Your task to perform on an android device: Open calendar and show me the first week of next month Image 0: 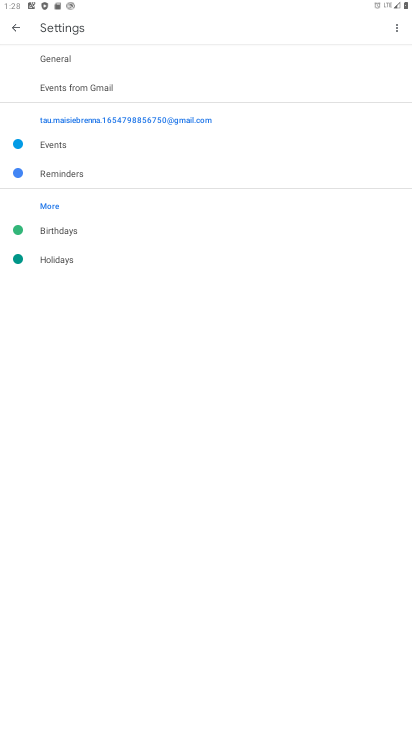
Step 0: press home button
Your task to perform on an android device: Open calendar and show me the first week of next month Image 1: 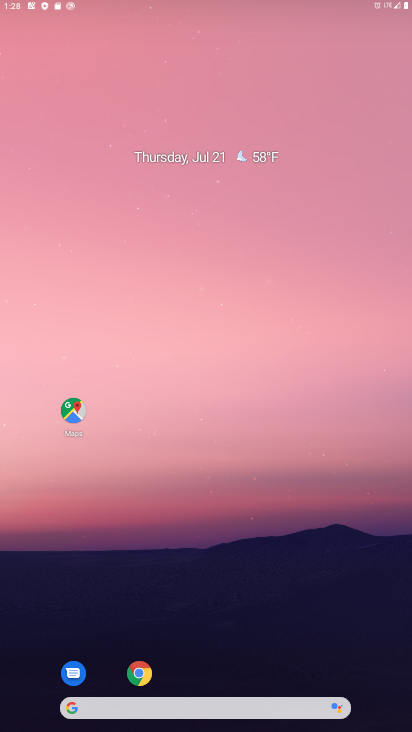
Step 1: drag from (224, 623) to (226, 309)
Your task to perform on an android device: Open calendar and show me the first week of next month Image 2: 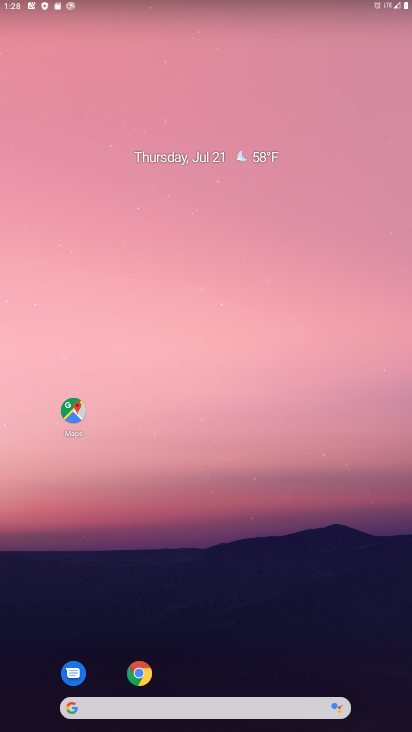
Step 2: drag from (227, 644) to (225, 266)
Your task to perform on an android device: Open calendar and show me the first week of next month Image 3: 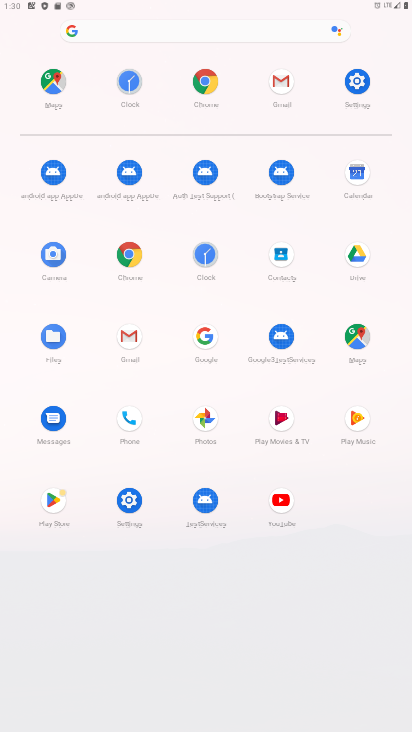
Step 3: click (361, 172)
Your task to perform on an android device: Open calendar and show me the first week of next month Image 4: 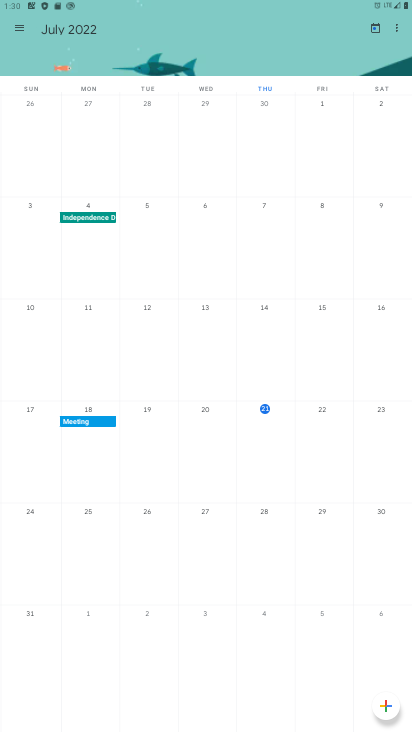
Step 4: click (63, 280)
Your task to perform on an android device: Open calendar and show me the first week of next month Image 5: 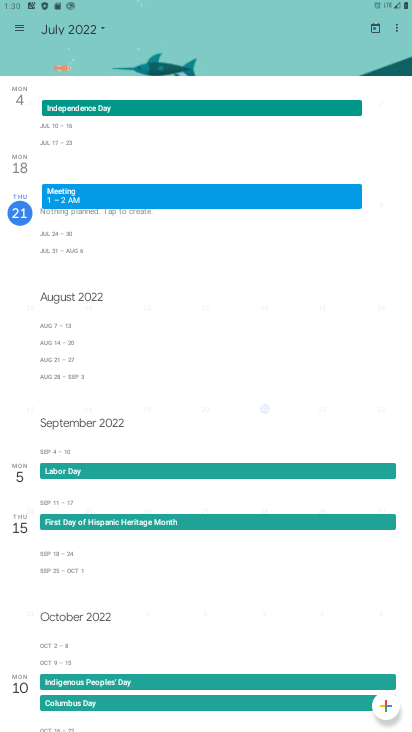
Step 5: drag from (300, 311) to (88, 342)
Your task to perform on an android device: Open calendar and show me the first week of next month Image 6: 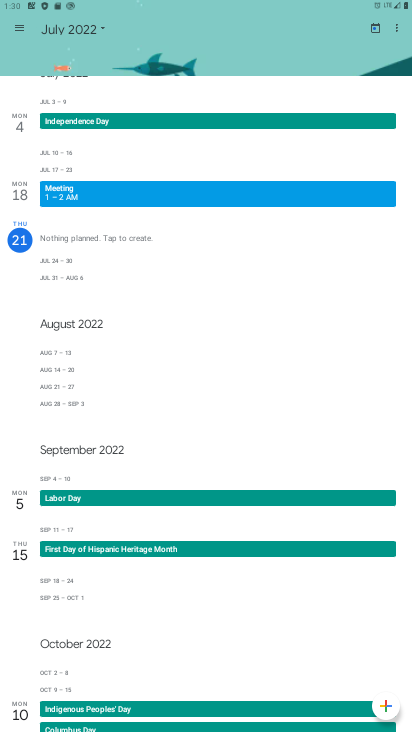
Step 6: click (12, 25)
Your task to perform on an android device: Open calendar and show me the first week of next month Image 7: 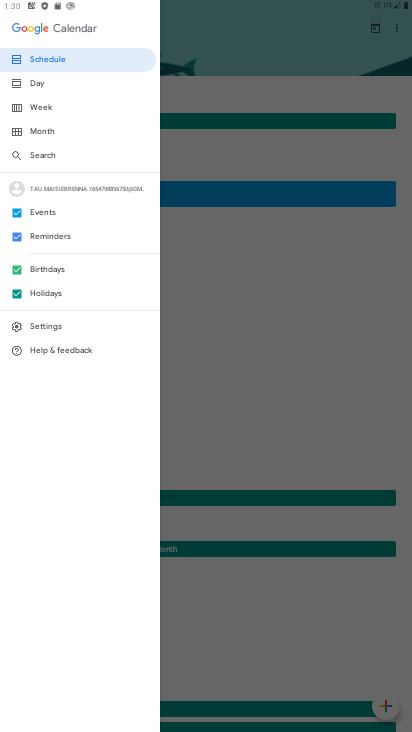
Step 7: click (50, 127)
Your task to perform on an android device: Open calendar and show me the first week of next month Image 8: 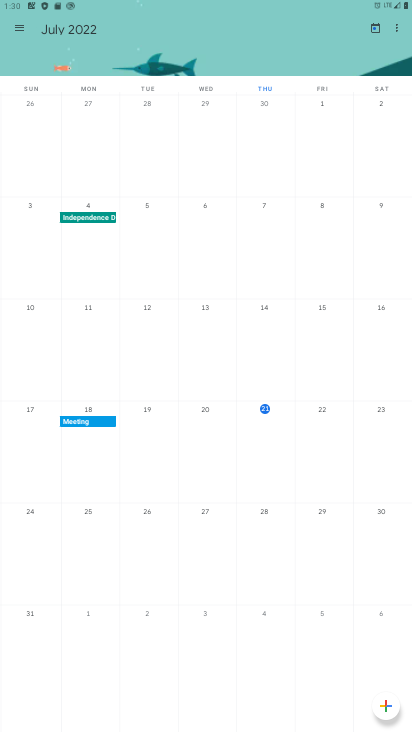
Step 8: task complete